Your task to perform on an android device: Open settings on Google Maps Image 0: 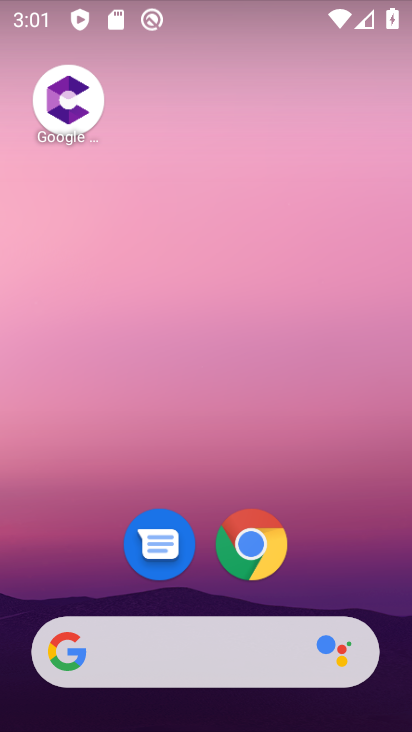
Step 0: drag from (215, 592) to (234, 175)
Your task to perform on an android device: Open settings on Google Maps Image 1: 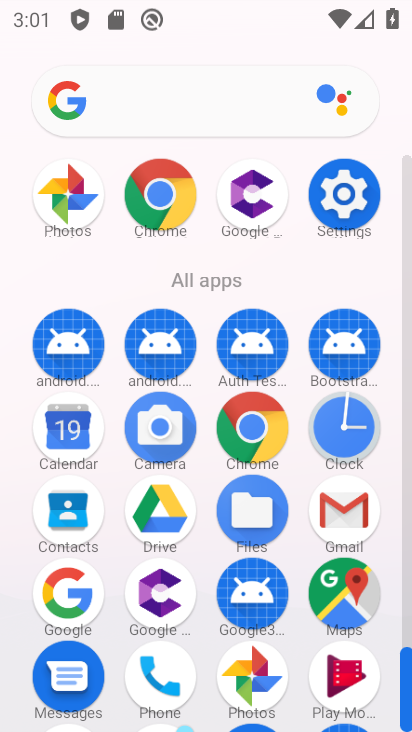
Step 1: click (336, 604)
Your task to perform on an android device: Open settings on Google Maps Image 2: 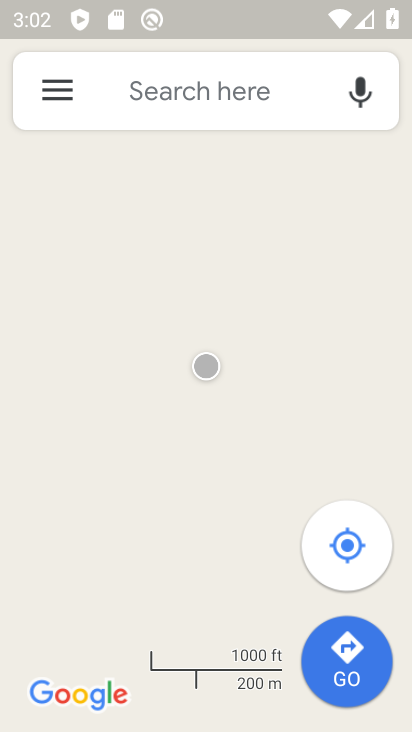
Step 2: click (69, 100)
Your task to perform on an android device: Open settings on Google Maps Image 3: 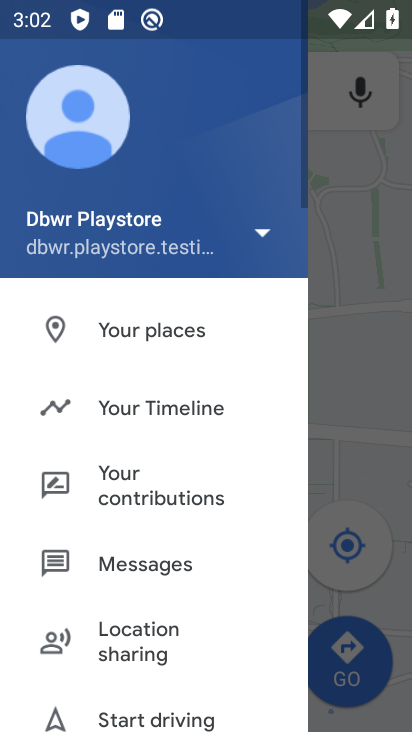
Step 3: drag from (98, 544) to (118, 258)
Your task to perform on an android device: Open settings on Google Maps Image 4: 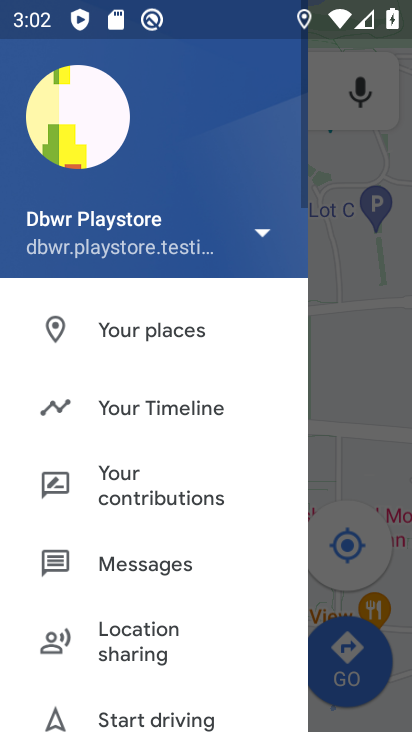
Step 4: drag from (152, 644) to (157, 378)
Your task to perform on an android device: Open settings on Google Maps Image 5: 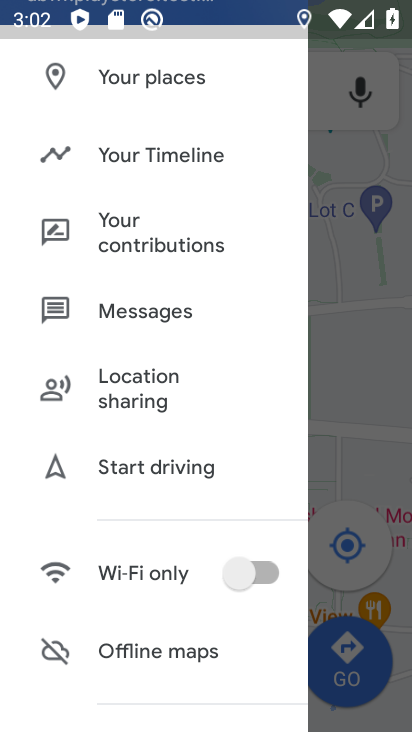
Step 5: drag from (116, 632) to (135, 392)
Your task to perform on an android device: Open settings on Google Maps Image 6: 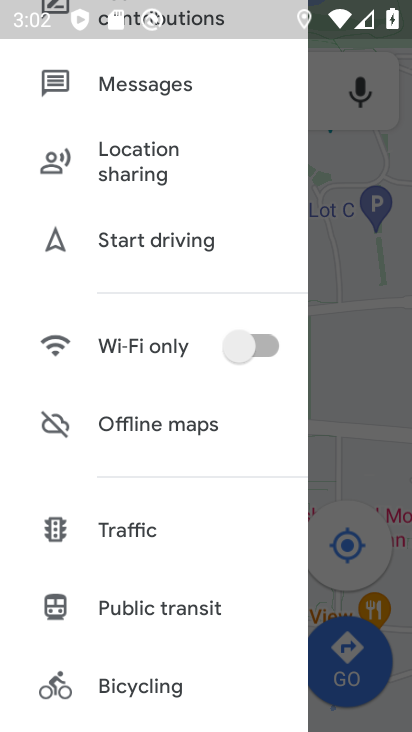
Step 6: drag from (110, 685) to (117, 331)
Your task to perform on an android device: Open settings on Google Maps Image 7: 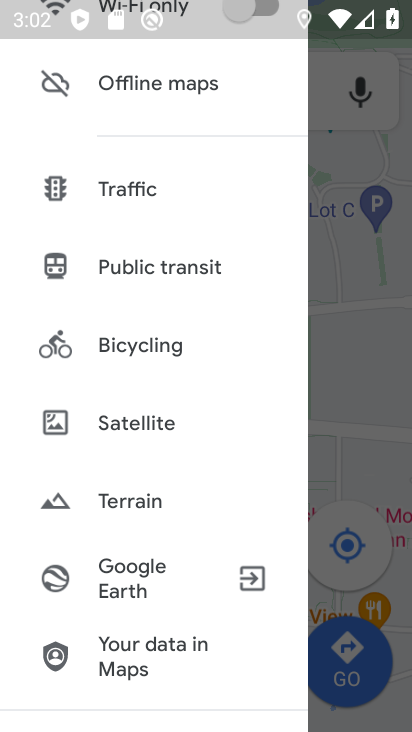
Step 7: drag from (131, 561) to (165, 250)
Your task to perform on an android device: Open settings on Google Maps Image 8: 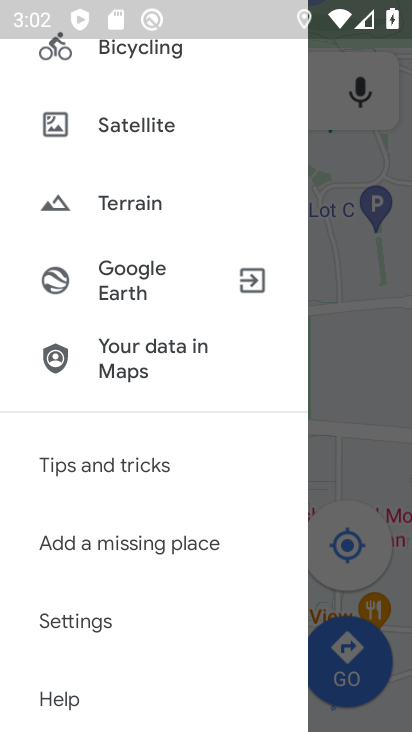
Step 8: click (94, 627)
Your task to perform on an android device: Open settings on Google Maps Image 9: 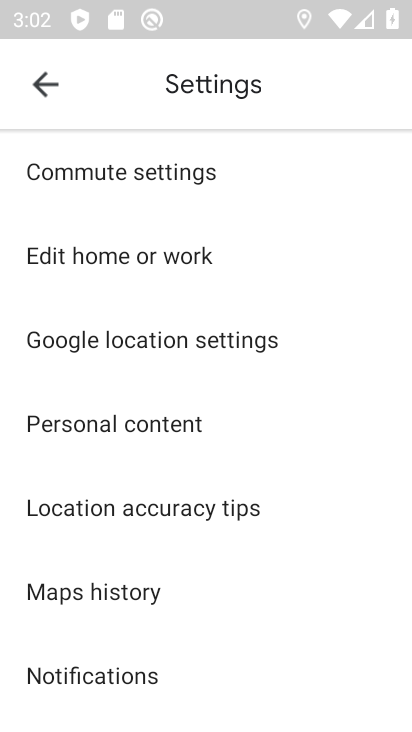
Step 9: task complete